Your task to perform on an android device: toggle improve location accuracy Image 0: 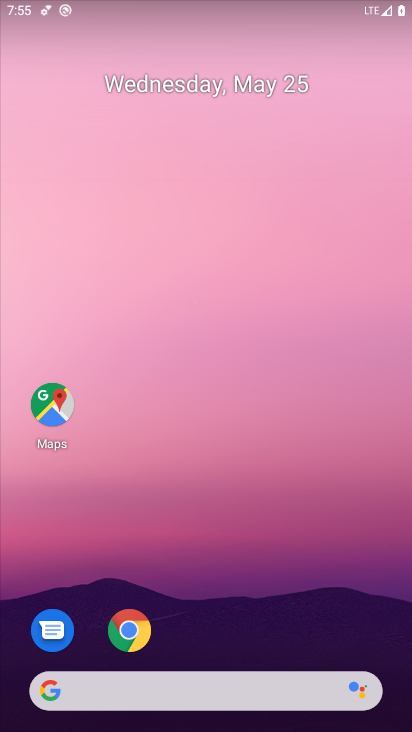
Step 0: drag from (231, 669) to (265, 348)
Your task to perform on an android device: toggle improve location accuracy Image 1: 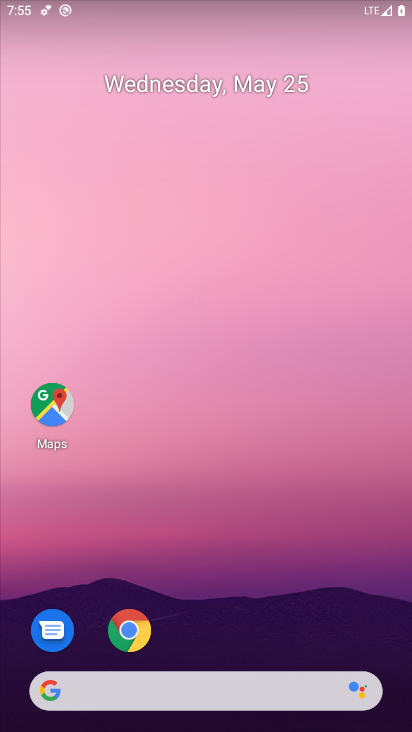
Step 1: drag from (168, 672) to (246, 175)
Your task to perform on an android device: toggle improve location accuracy Image 2: 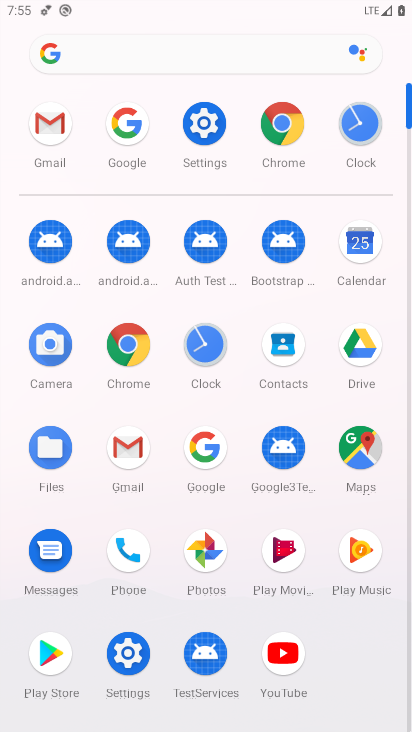
Step 2: click (204, 117)
Your task to perform on an android device: toggle improve location accuracy Image 3: 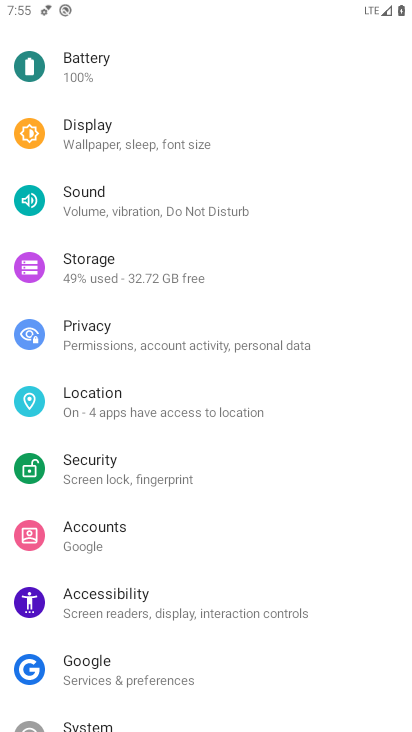
Step 3: drag from (114, 694) to (167, 357)
Your task to perform on an android device: toggle improve location accuracy Image 4: 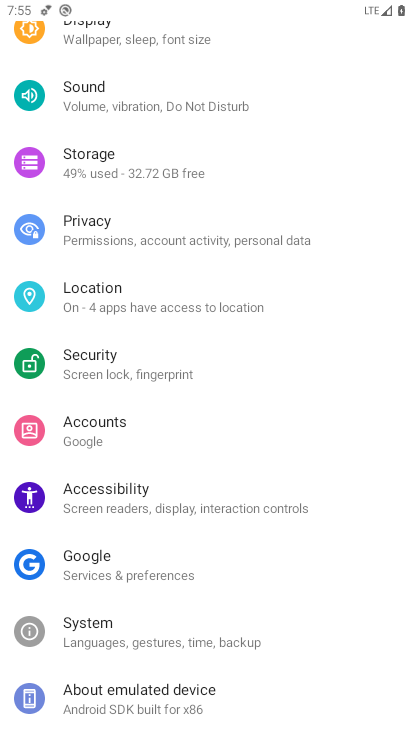
Step 4: click (137, 296)
Your task to perform on an android device: toggle improve location accuracy Image 5: 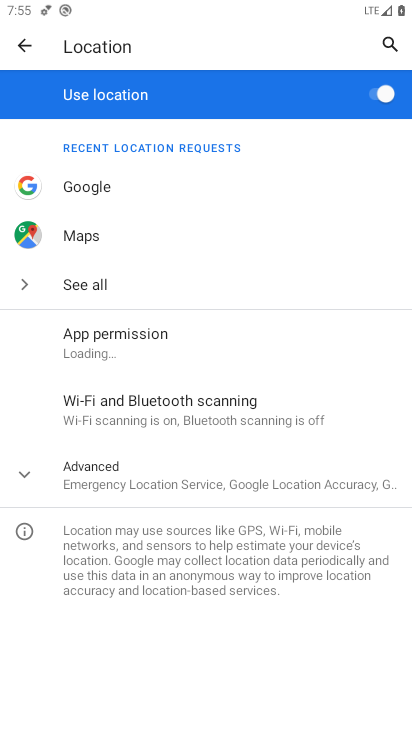
Step 5: click (112, 468)
Your task to perform on an android device: toggle improve location accuracy Image 6: 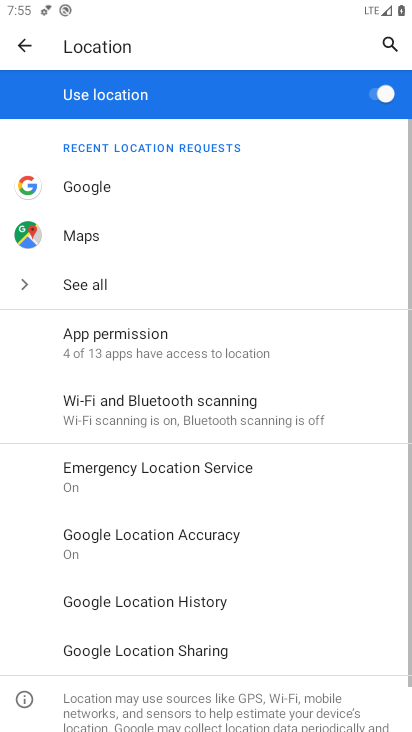
Step 6: drag from (129, 694) to (184, 459)
Your task to perform on an android device: toggle improve location accuracy Image 7: 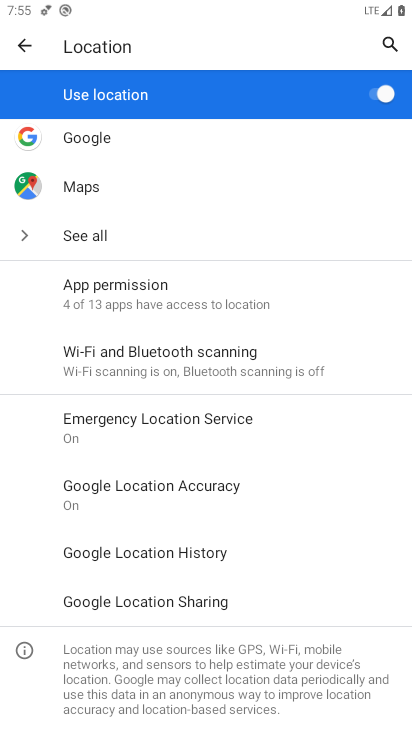
Step 7: click (176, 493)
Your task to perform on an android device: toggle improve location accuracy Image 8: 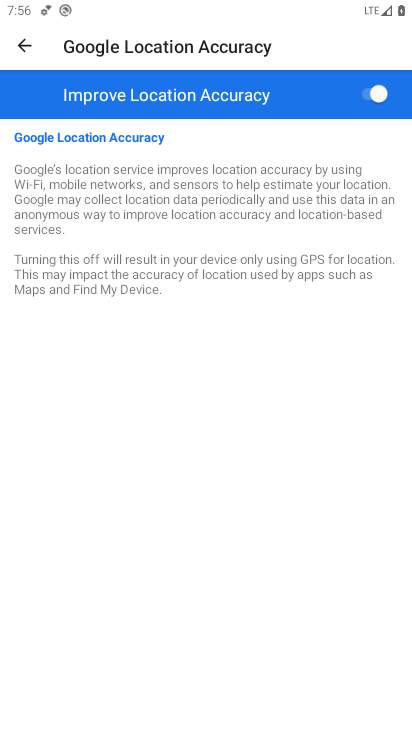
Step 8: task complete